Your task to perform on an android device: See recent photos Image 0: 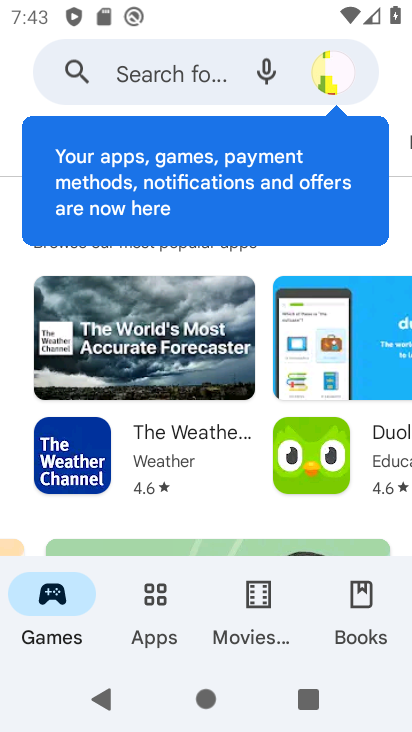
Step 0: press home button
Your task to perform on an android device: See recent photos Image 1: 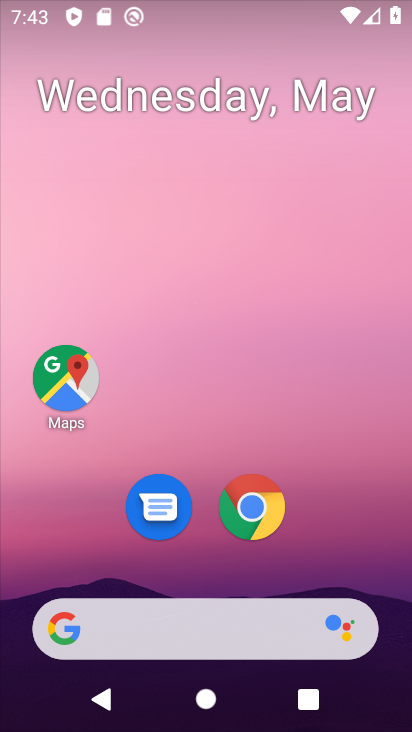
Step 1: drag from (222, 582) to (211, 199)
Your task to perform on an android device: See recent photos Image 2: 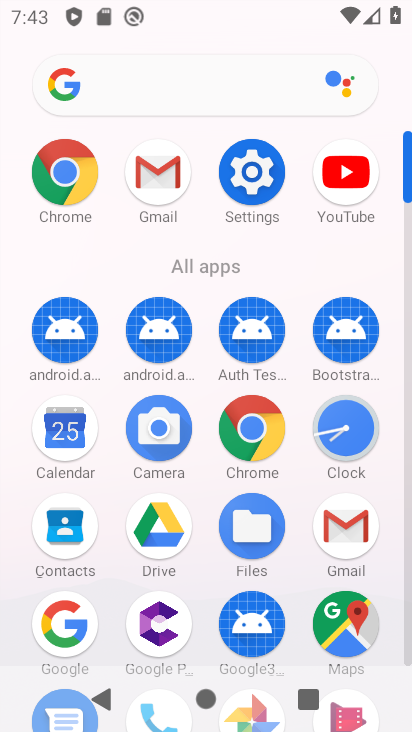
Step 2: drag from (204, 639) to (231, 367)
Your task to perform on an android device: See recent photos Image 3: 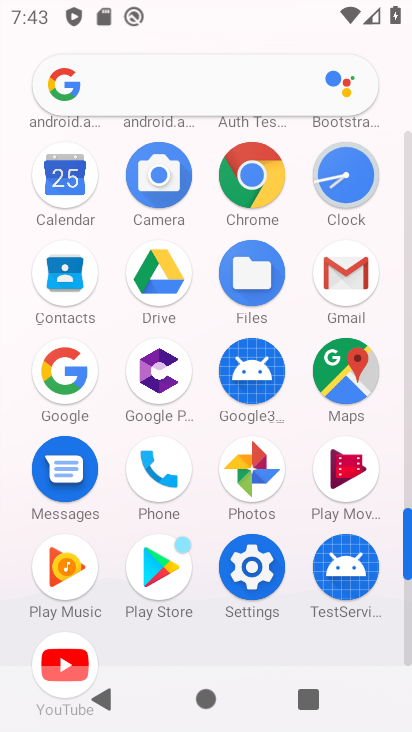
Step 3: click (242, 471)
Your task to perform on an android device: See recent photos Image 4: 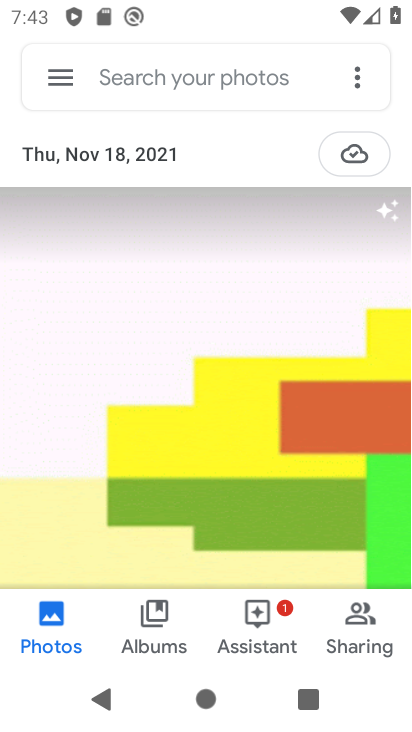
Step 4: task complete